Your task to perform on an android device: find snoozed emails in the gmail app Image 0: 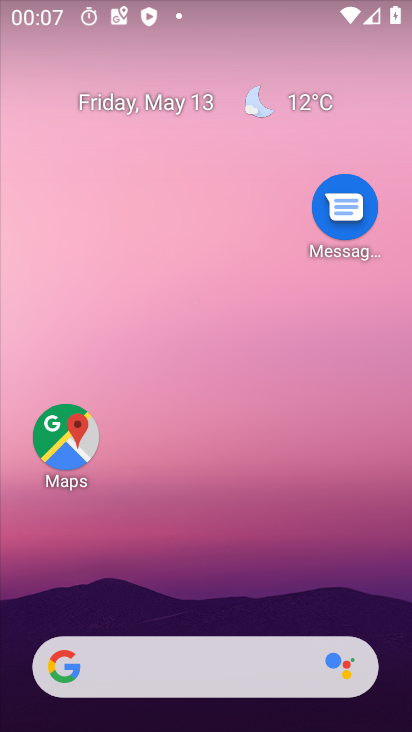
Step 0: drag from (184, 583) to (160, 19)
Your task to perform on an android device: find snoozed emails in the gmail app Image 1: 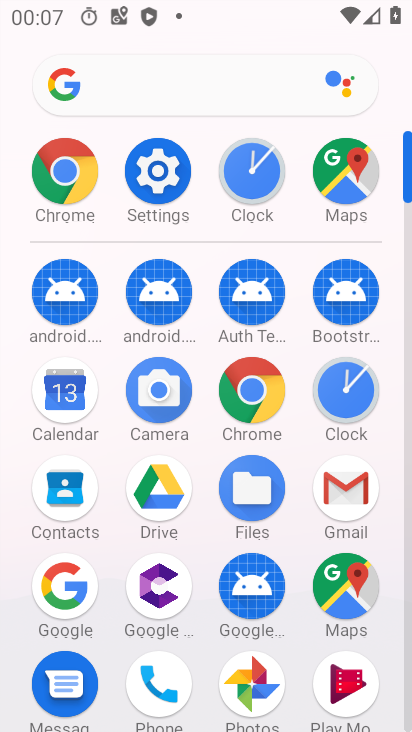
Step 1: click (334, 480)
Your task to perform on an android device: find snoozed emails in the gmail app Image 2: 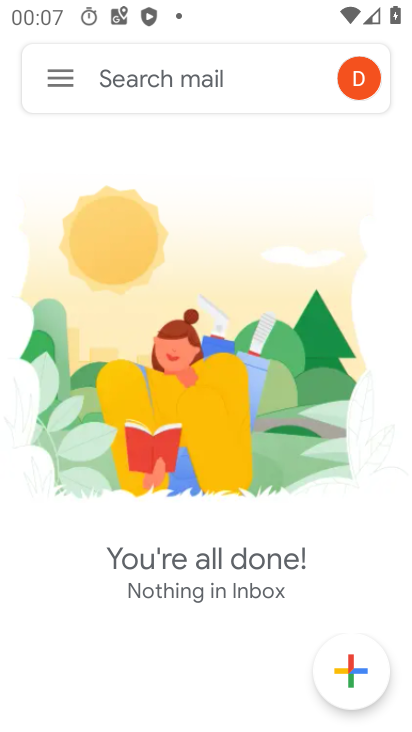
Step 2: click (62, 86)
Your task to perform on an android device: find snoozed emails in the gmail app Image 3: 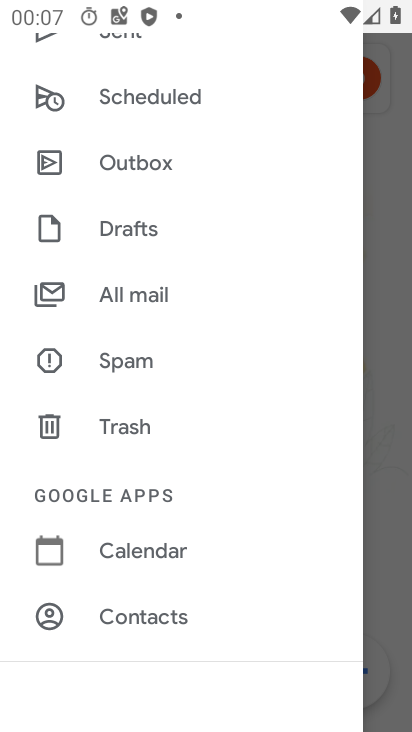
Step 3: drag from (203, 157) to (205, 486)
Your task to perform on an android device: find snoozed emails in the gmail app Image 4: 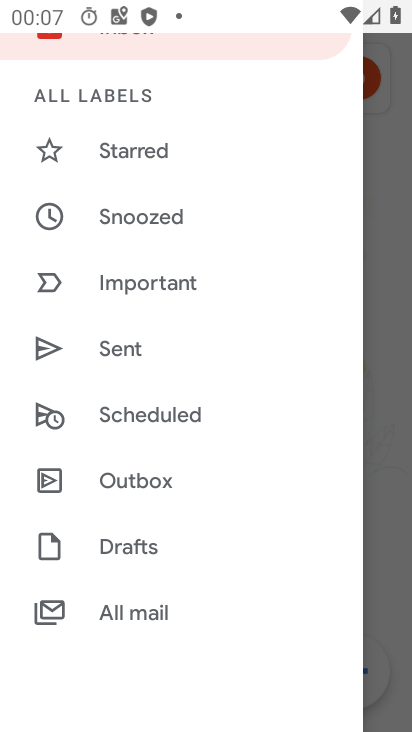
Step 4: click (124, 215)
Your task to perform on an android device: find snoozed emails in the gmail app Image 5: 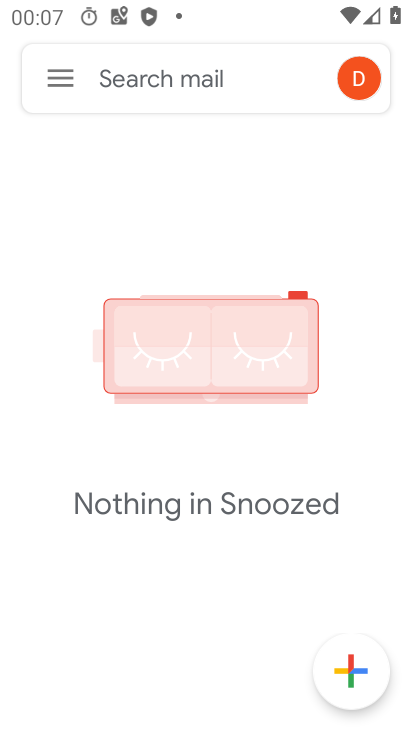
Step 5: task complete